Your task to perform on an android device: turn off smart reply in the gmail app Image 0: 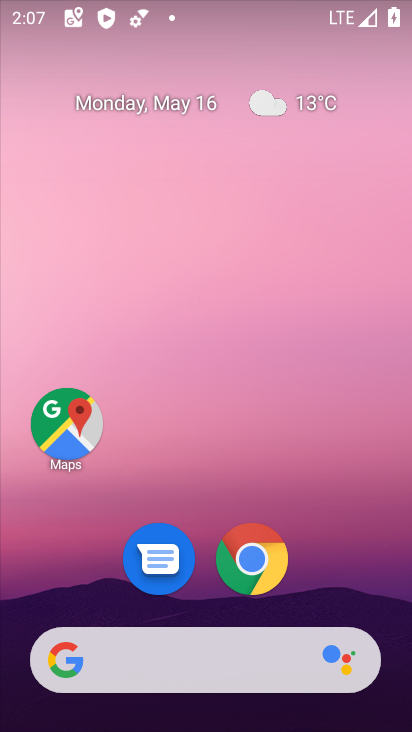
Step 0: drag from (197, 535) to (239, 37)
Your task to perform on an android device: turn off smart reply in the gmail app Image 1: 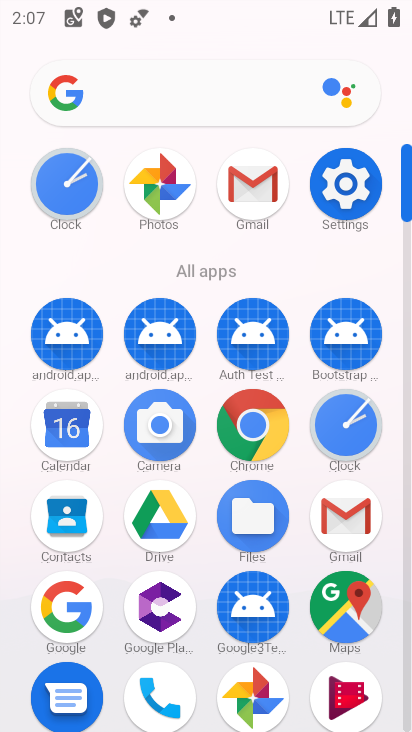
Step 1: click (251, 192)
Your task to perform on an android device: turn off smart reply in the gmail app Image 2: 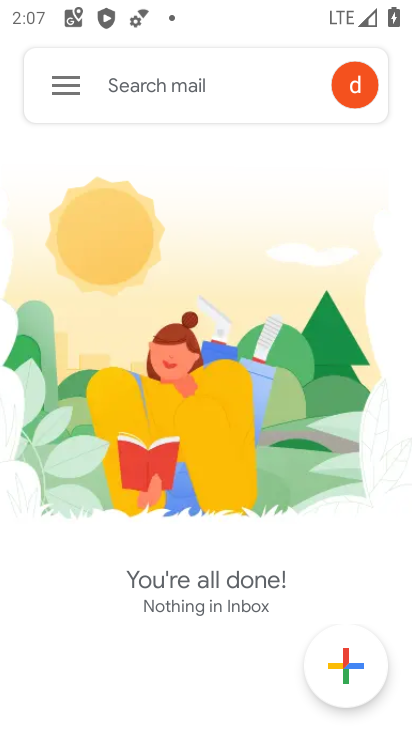
Step 2: click (58, 88)
Your task to perform on an android device: turn off smart reply in the gmail app Image 3: 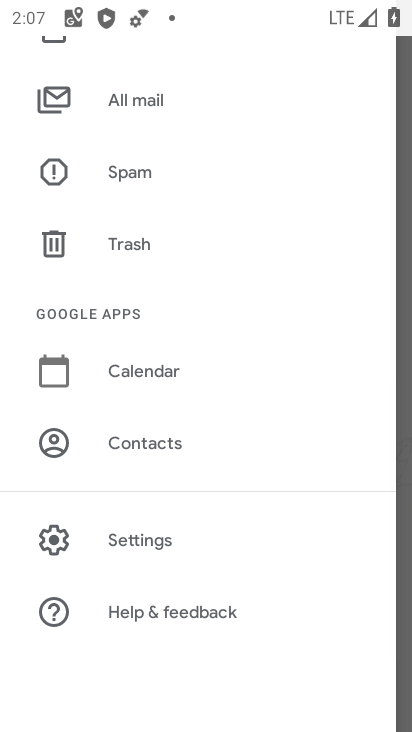
Step 3: click (157, 541)
Your task to perform on an android device: turn off smart reply in the gmail app Image 4: 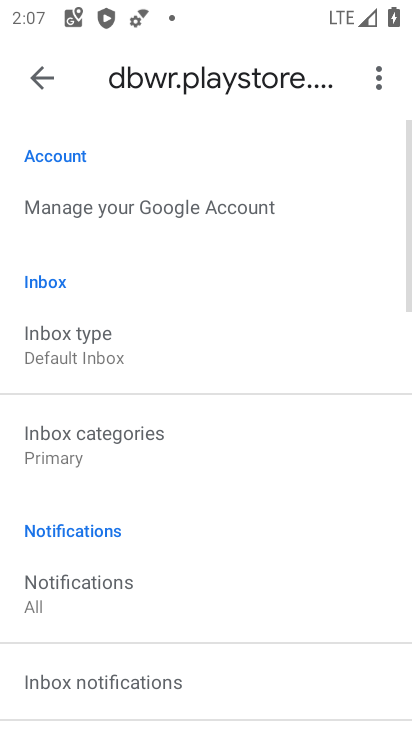
Step 4: drag from (132, 643) to (259, 88)
Your task to perform on an android device: turn off smart reply in the gmail app Image 5: 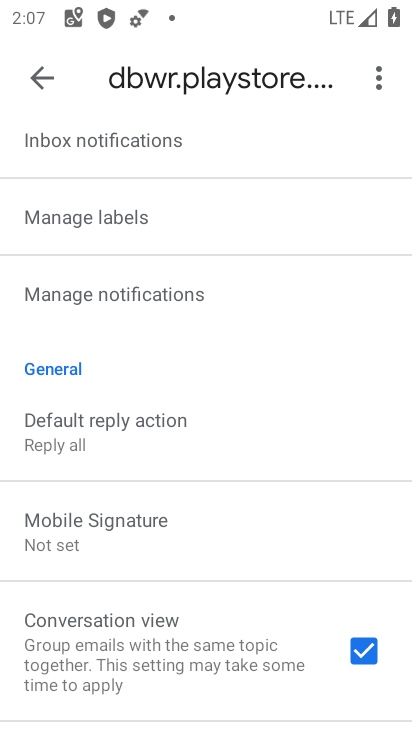
Step 5: drag from (180, 626) to (321, 38)
Your task to perform on an android device: turn off smart reply in the gmail app Image 6: 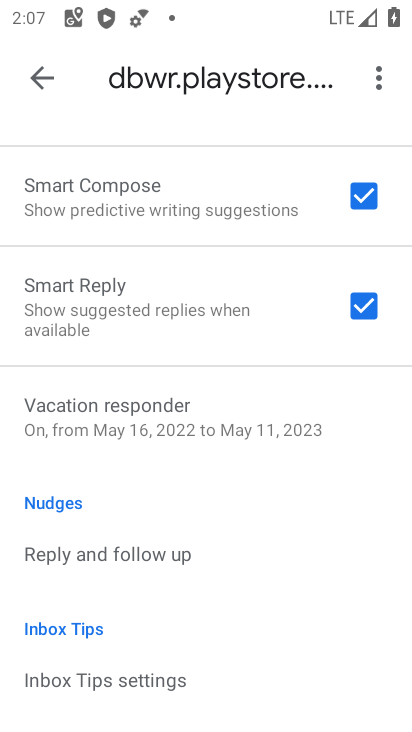
Step 6: click (365, 302)
Your task to perform on an android device: turn off smart reply in the gmail app Image 7: 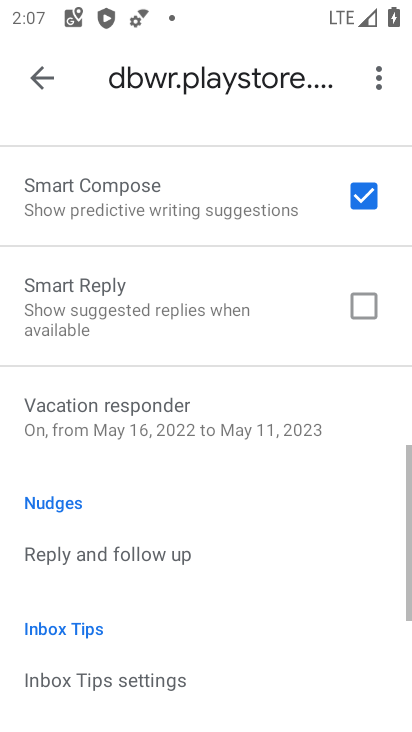
Step 7: task complete